Your task to perform on an android device: Turn off the flashlight Image 0: 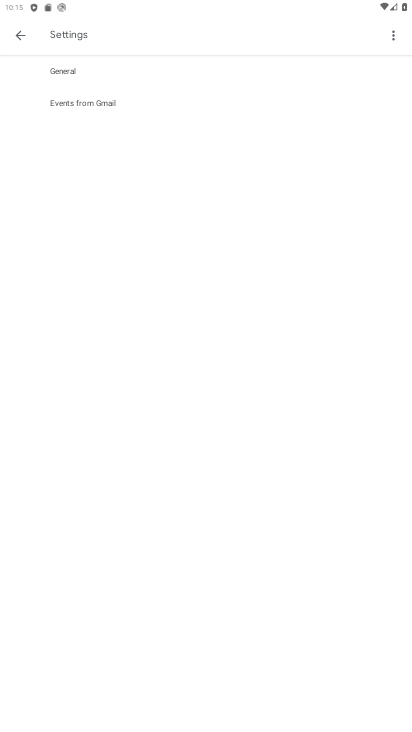
Step 0: drag from (222, 9) to (251, 410)
Your task to perform on an android device: Turn off the flashlight Image 1: 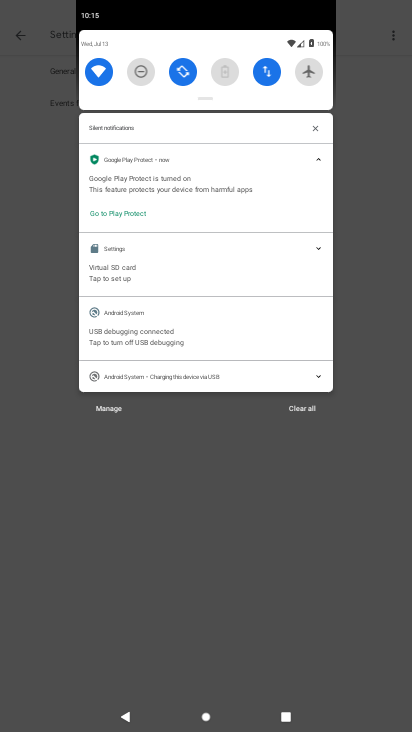
Step 1: drag from (202, 101) to (194, 319)
Your task to perform on an android device: Turn off the flashlight Image 2: 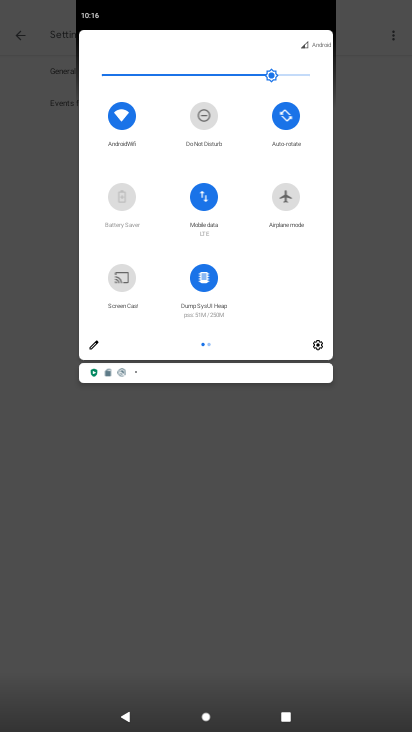
Step 2: click (92, 346)
Your task to perform on an android device: Turn off the flashlight Image 3: 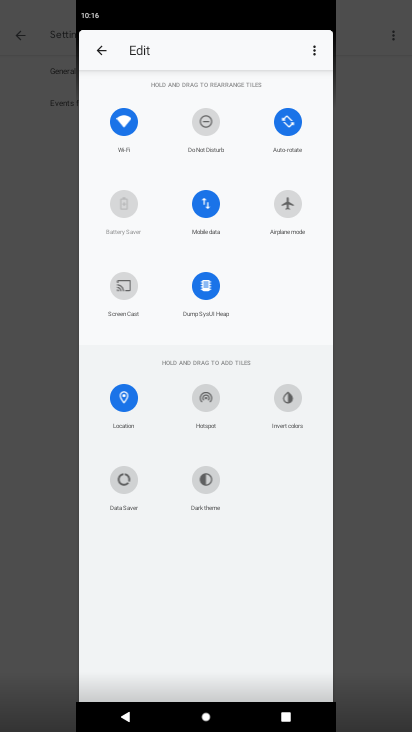
Step 3: task complete